Your task to perform on an android device: Open the calendar app, open the side menu, and click the "Day" option Image 0: 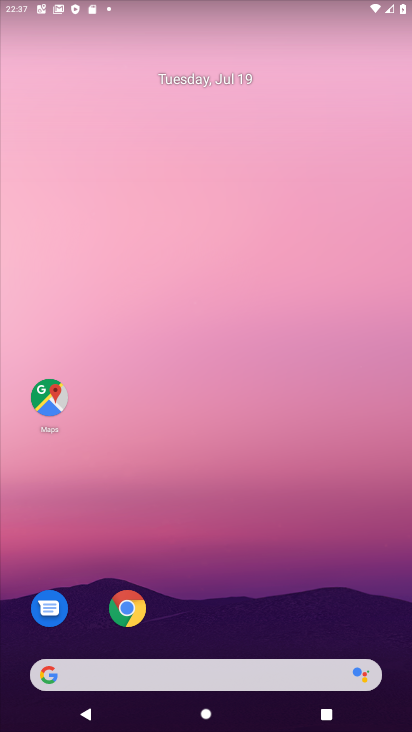
Step 0: drag from (321, 591) to (311, 59)
Your task to perform on an android device: Open the calendar app, open the side menu, and click the "Day" option Image 1: 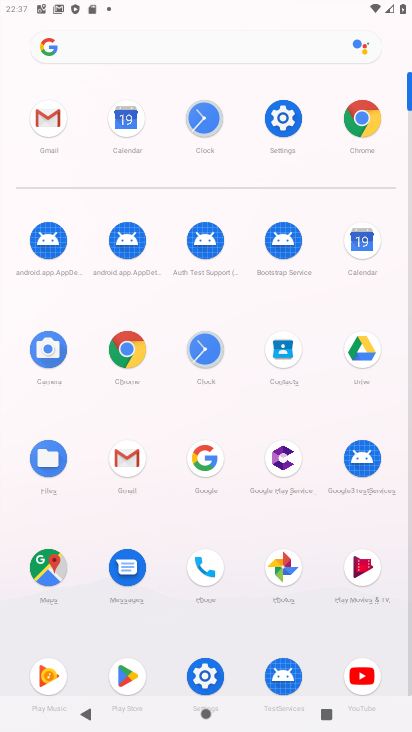
Step 1: click (364, 244)
Your task to perform on an android device: Open the calendar app, open the side menu, and click the "Day" option Image 2: 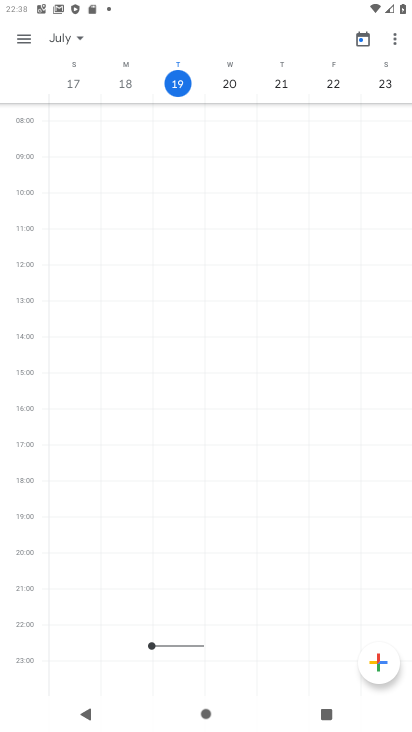
Step 2: click (24, 31)
Your task to perform on an android device: Open the calendar app, open the side menu, and click the "Day" option Image 3: 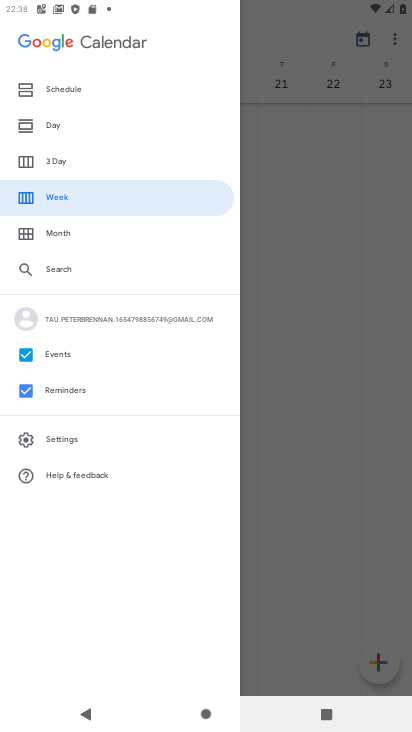
Step 3: click (67, 132)
Your task to perform on an android device: Open the calendar app, open the side menu, and click the "Day" option Image 4: 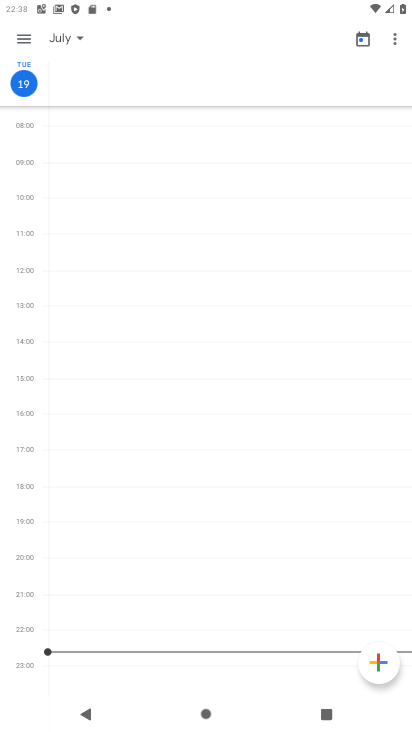
Step 4: task complete